Your task to perform on an android device: turn on translation in the chrome app Image 0: 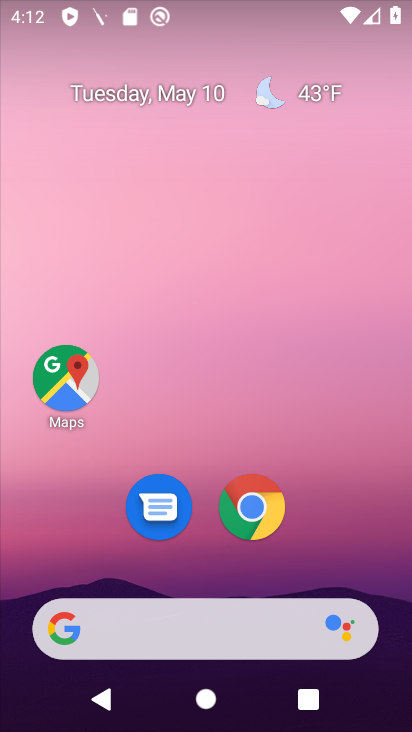
Step 0: click (259, 504)
Your task to perform on an android device: turn on translation in the chrome app Image 1: 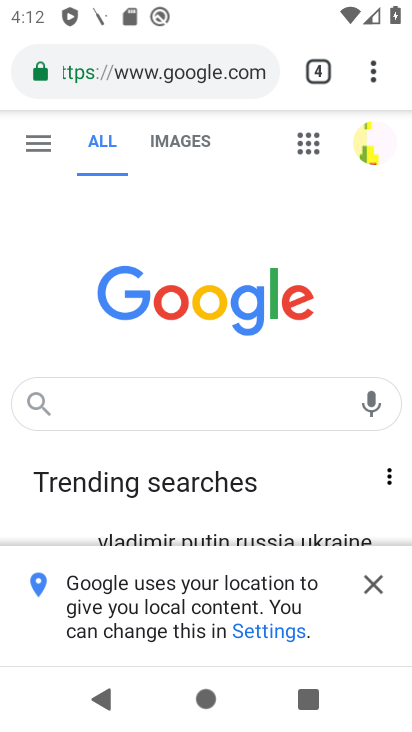
Step 1: click (365, 70)
Your task to perform on an android device: turn on translation in the chrome app Image 2: 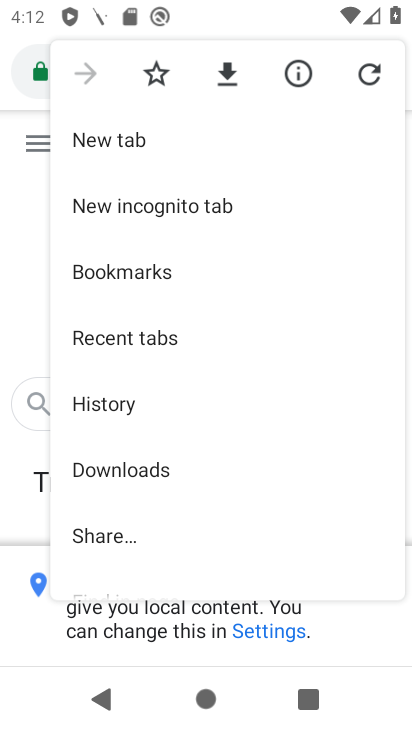
Step 2: drag from (121, 482) to (210, 61)
Your task to perform on an android device: turn on translation in the chrome app Image 3: 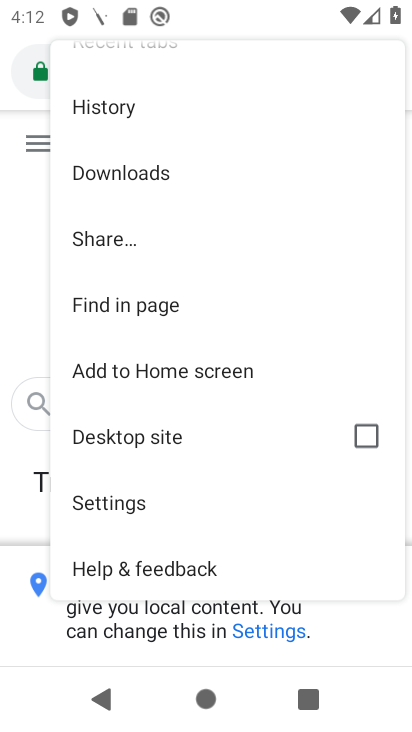
Step 3: click (75, 503)
Your task to perform on an android device: turn on translation in the chrome app Image 4: 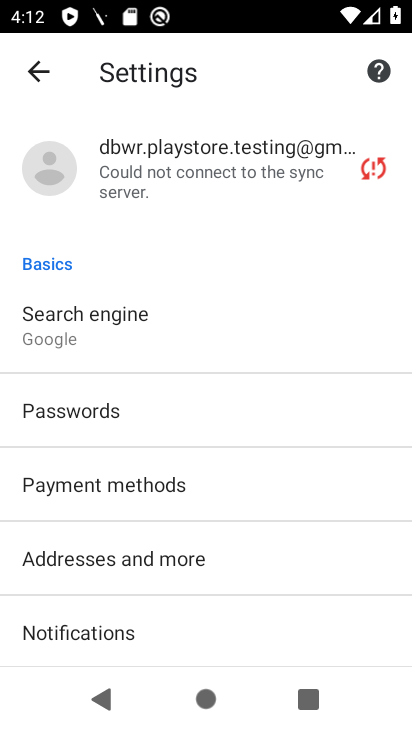
Step 4: drag from (93, 568) to (247, 28)
Your task to perform on an android device: turn on translation in the chrome app Image 5: 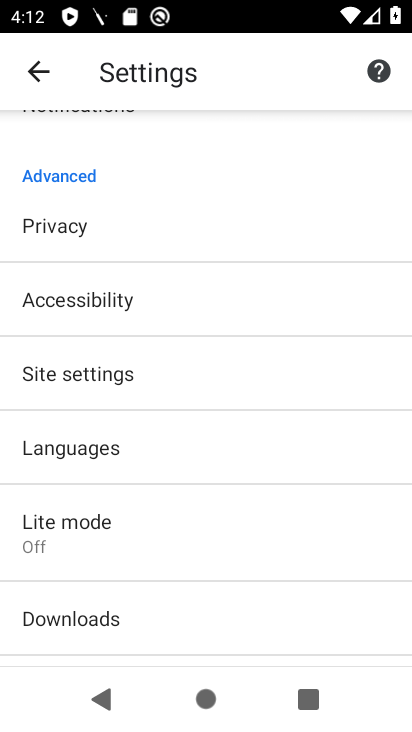
Step 5: click (116, 448)
Your task to perform on an android device: turn on translation in the chrome app Image 6: 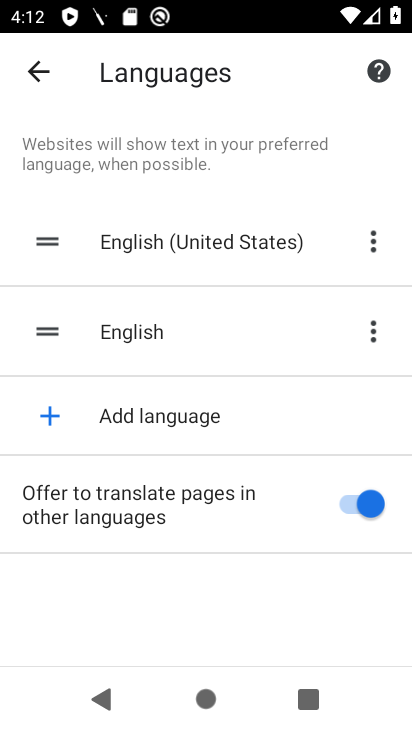
Step 6: task complete